Your task to perform on an android device: turn on notifications settings in the gmail app Image 0: 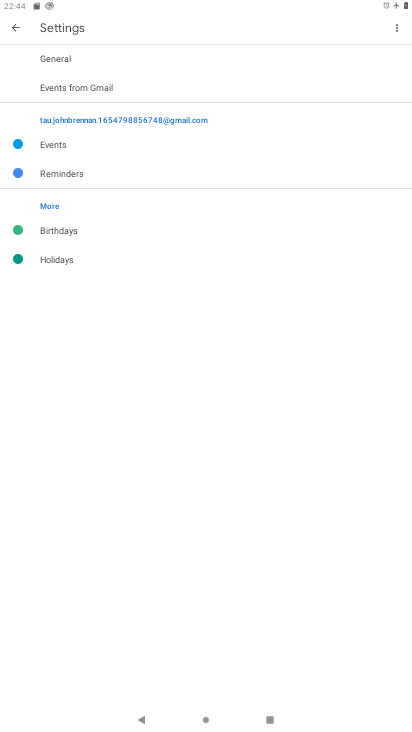
Step 0: press home button
Your task to perform on an android device: turn on notifications settings in the gmail app Image 1: 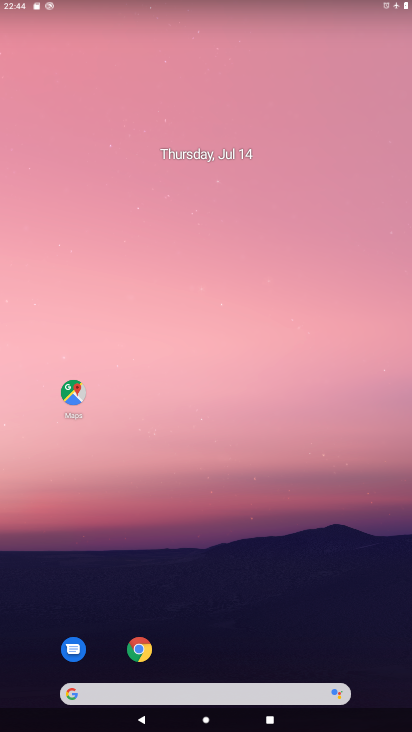
Step 1: drag from (190, 581) to (282, 4)
Your task to perform on an android device: turn on notifications settings in the gmail app Image 2: 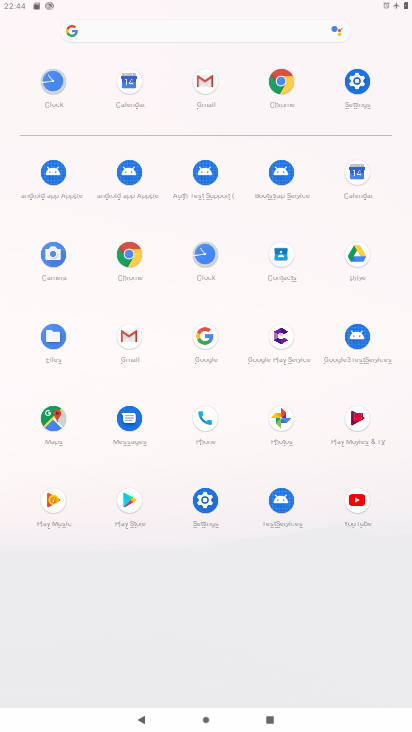
Step 2: click (367, 77)
Your task to perform on an android device: turn on notifications settings in the gmail app Image 3: 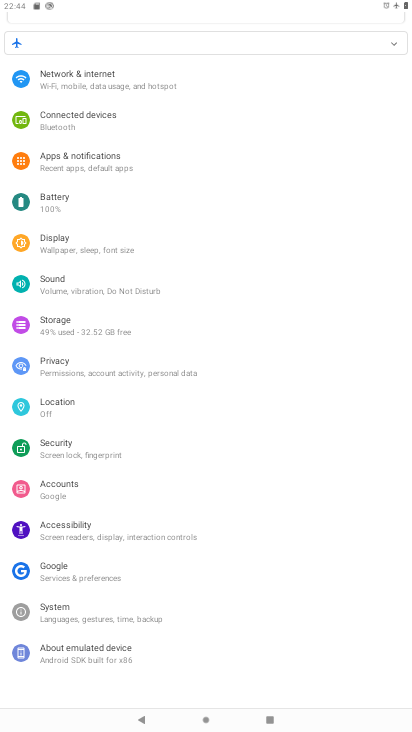
Step 3: click (139, 171)
Your task to perform on an android device: turn on notifications settings in the gmail app Image 4: 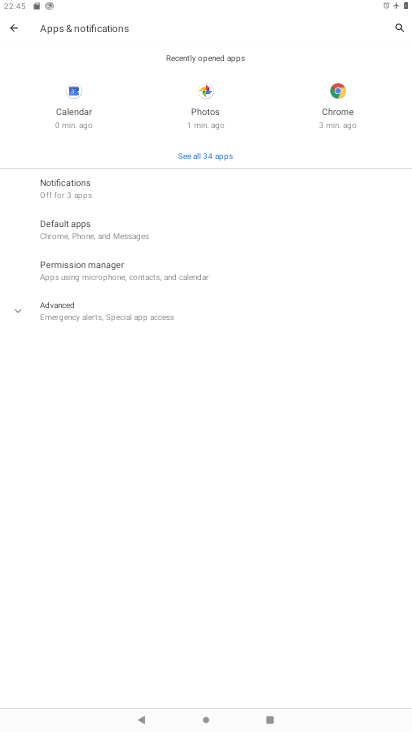
Step 4: click (221, 158)
Your task to perform on an android device: turn on notifications settings in the gmail app Image 5: 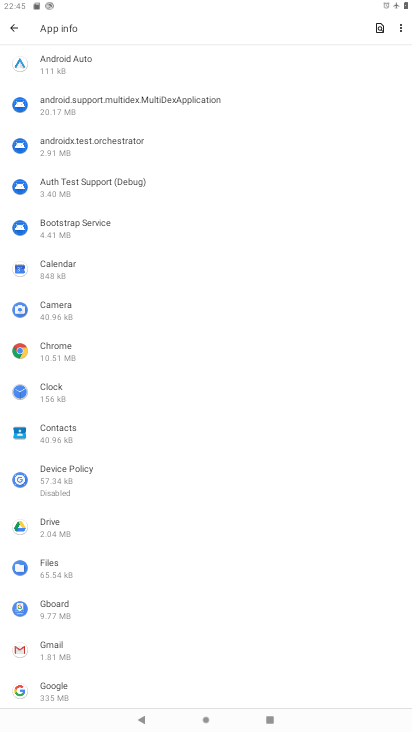
Step 5: click (157, 656)
Your task to perform on an android device: turn on notifications settings in the gmail app Image 6: 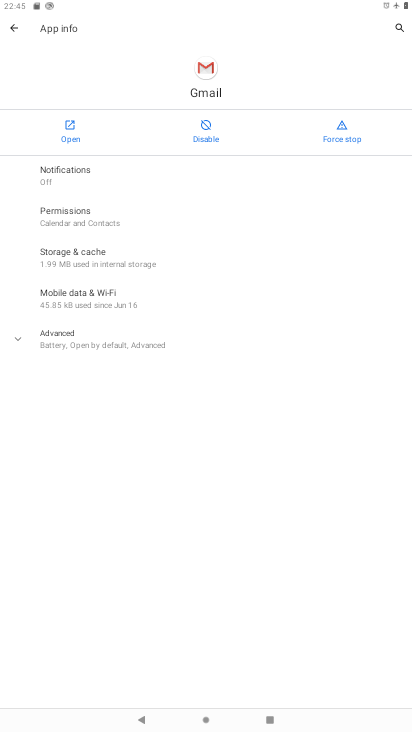
Step 6: click (302, 173)
Your task to perform on an android device: turn on notifications settings in the gmail app Image 7: 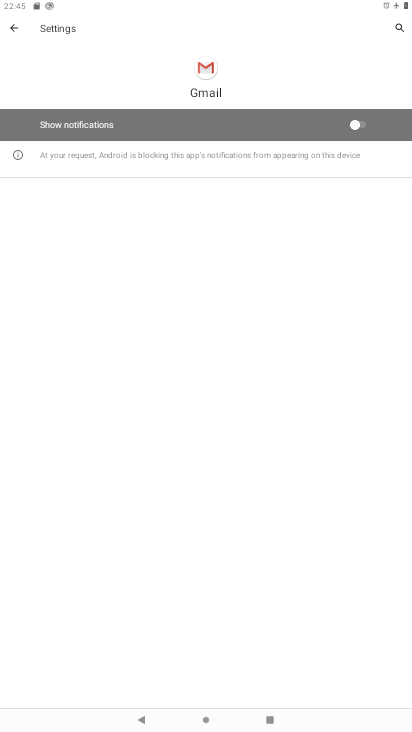
Step 7: click (358, 116)
Your task to perform on an android device: turn on notifications settings in the gmail app Image 8: 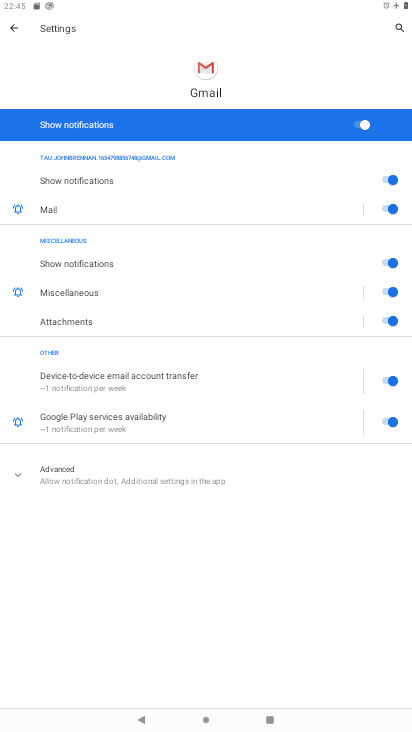
Step 8: task complete